Your task to perform on an android device: See recent photos Image 0: 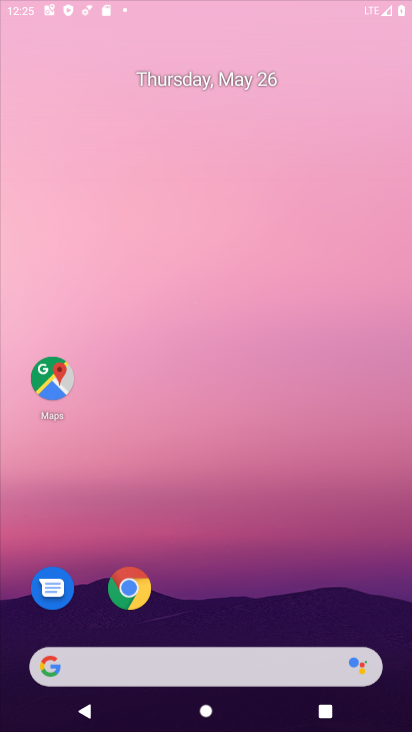
Step 0: drag from (300, 579) to (288, 513)
Your task to perform on an android device: See recent photos Image 1: 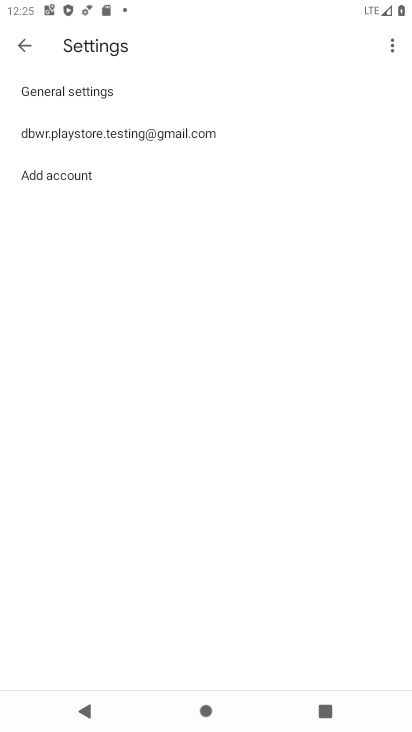
Step 1: press back button
Your task to perform on an android device: See recent photos Image 2: 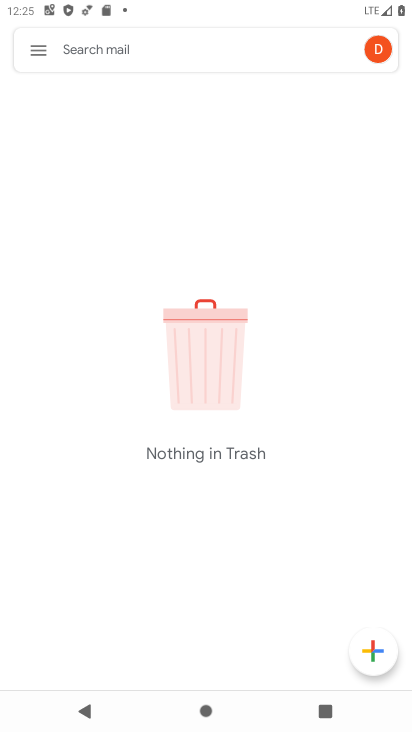
Step 2: press home button
Your task to perform on an android device: See recent photos Image 3: 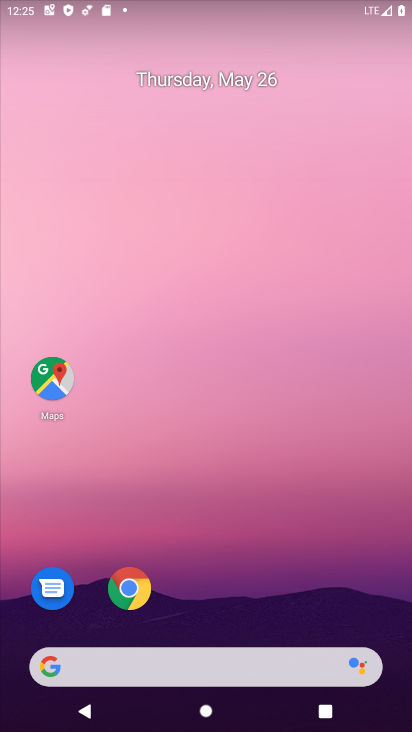
Step 3: drag from (222, 580) to (193, 26)
Your task to perform on an android device: See recent photos Image 4: 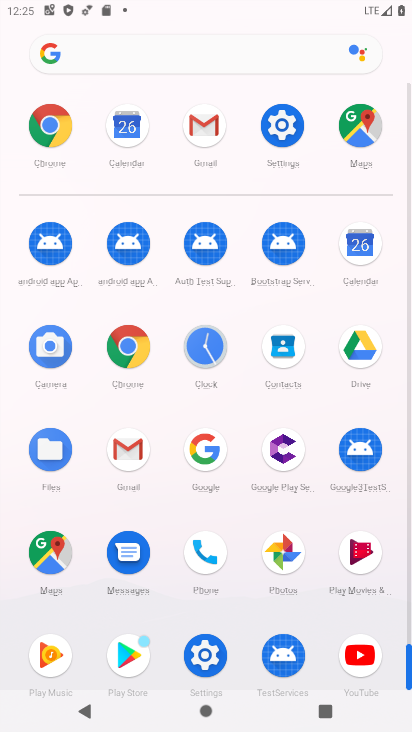
Step 4: click (280, 548)
Your task to perform on an android device: See recent photos Image 5: 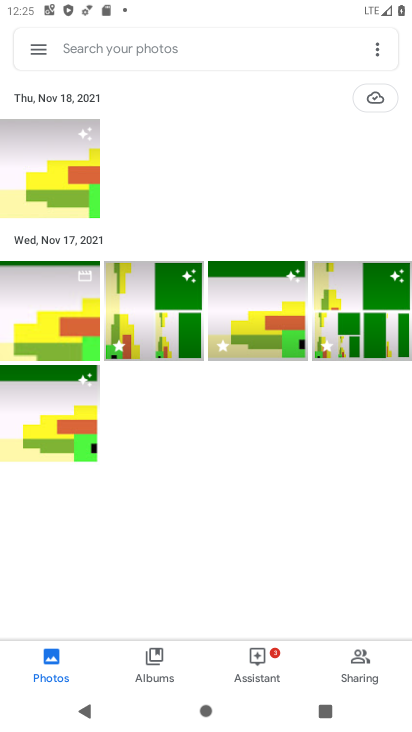
Step 5: task complete